Your task to perform on an android device: Show me recent news Image 0: 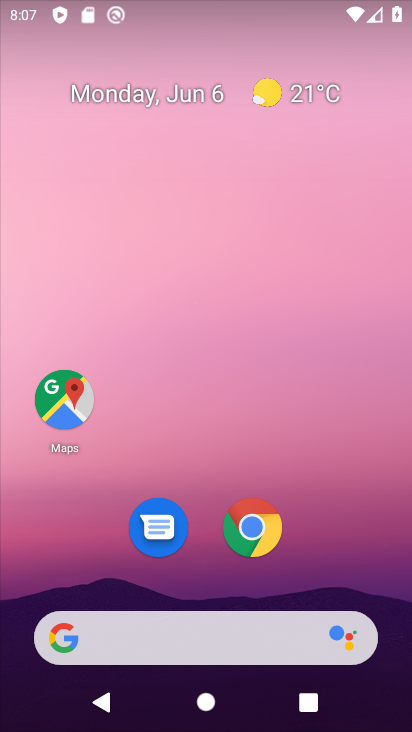
Step 0: drag from (329, 528) to (338, 172)
Your task to perform on an android device: Show me recent news Image 1: 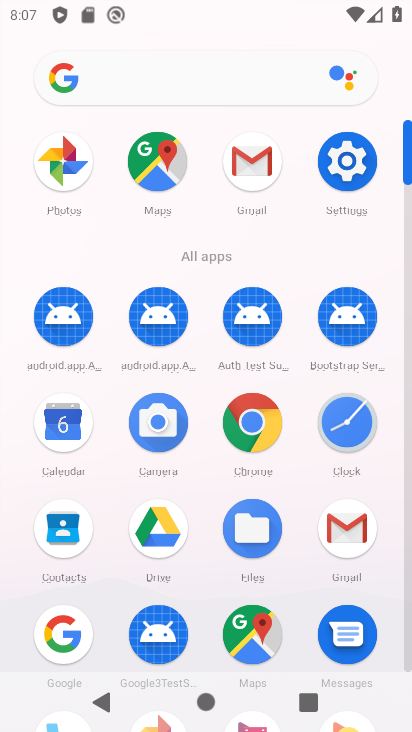
Step 1: drag from (215, 546) to (291, 433)
Your task to perform on an android device: Show me recent news Image 2: 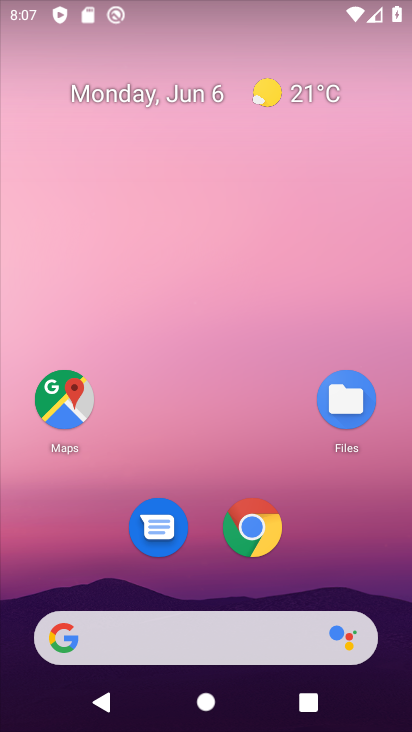
Step 2: drag from (201, 589) to (213, 98)
Your task to perform on an android device: Show me recent news Image 3: 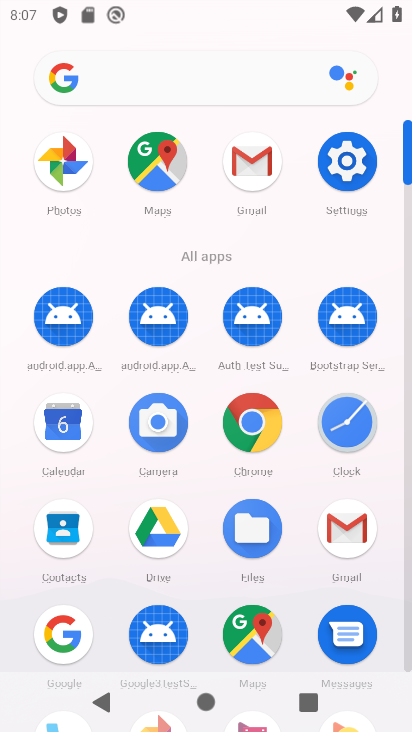
Step 3: click (72, 636)
Your task to perform on an android device: Show me recent news Image 4: 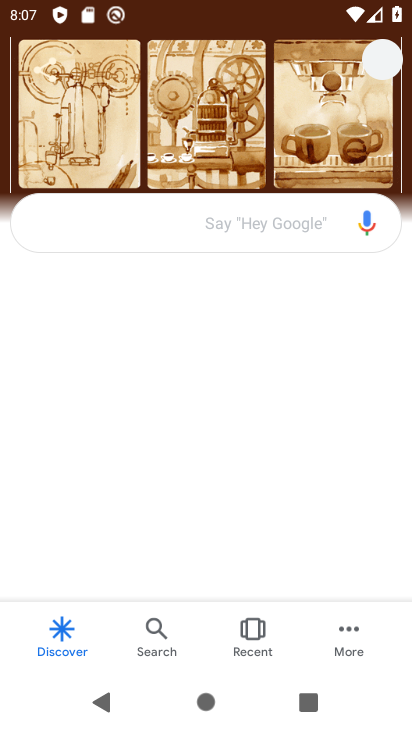
Step 4: click (195, 224)
Your task to perform on an android device: Show me recent news Image 5: 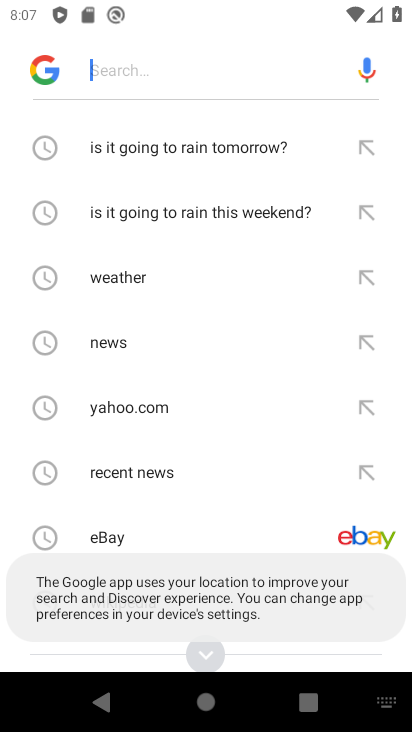
Step 5: click (116, 346)
Your task to perform on an android device: Show me recent news Image 6: 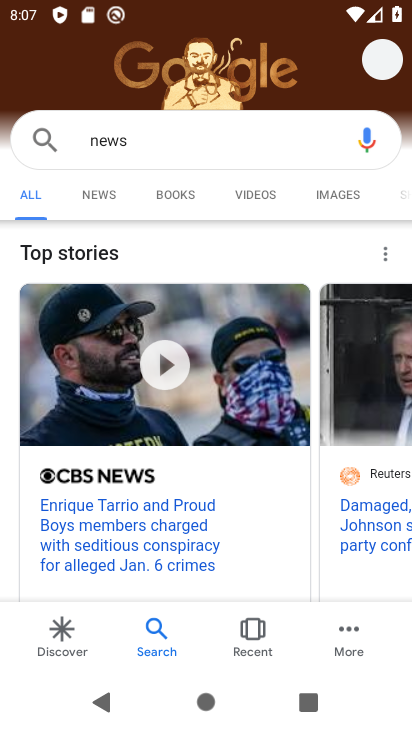
Step 6: task complete